Your task to perform on an android device: toggle javascript in the chrome app Image 0: 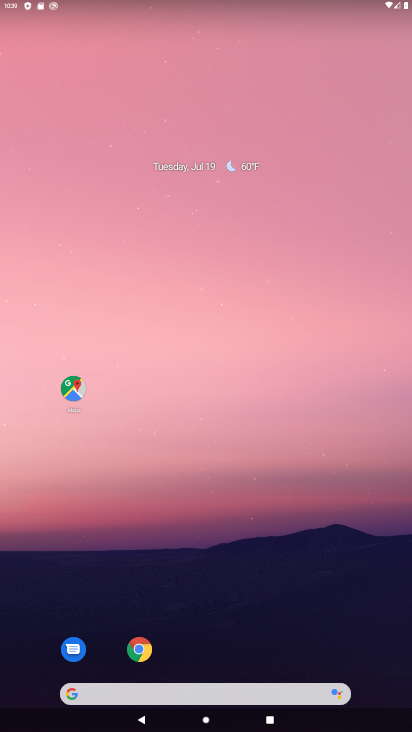
Step 0: click (147, 653)
Your task to perform on an android device: toggle javascript in the chrome app Image 1: 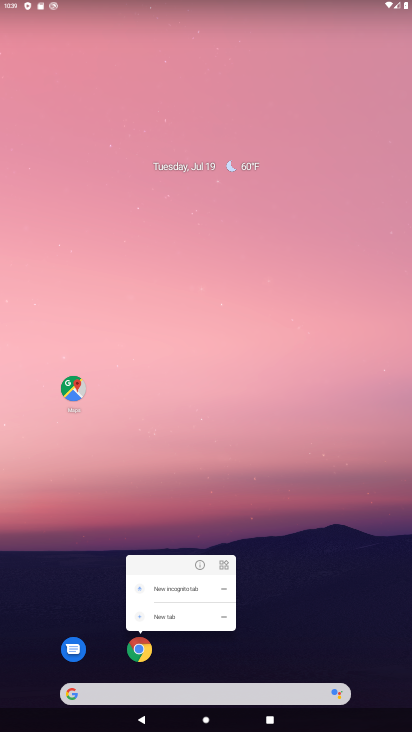
Step 1: click (135, 642)
Your task to perform on an android device: toggle javascript in the chrome app Image 2: 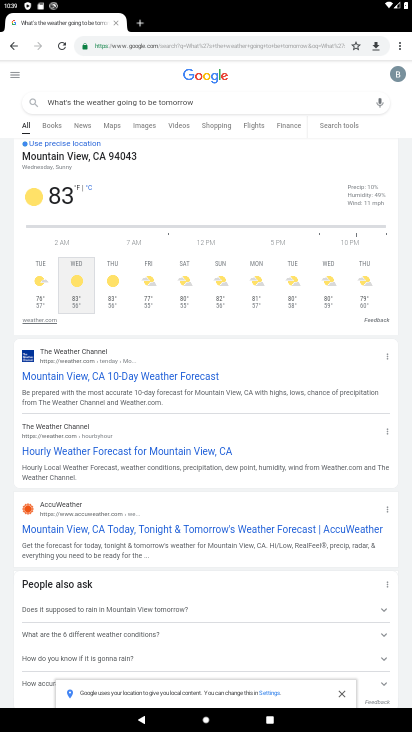
Step 2: drag from (399, 39) to (323, 276)
Your task to perform on an android device: toggle javascript in the chrome app Image 3: 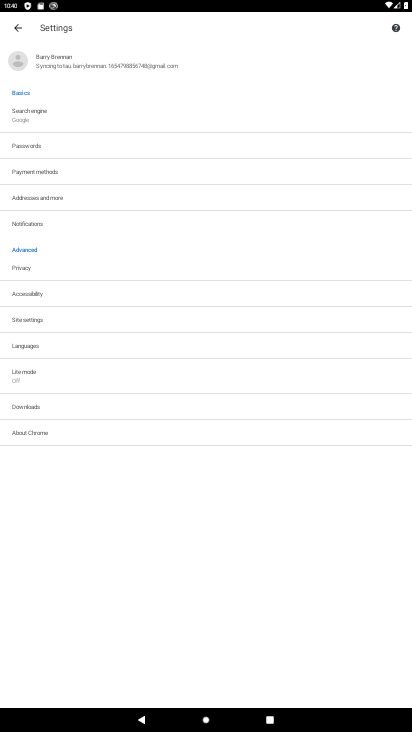
Step 3: click (43, 310)
Your task to perform on an android device: toggle javascript in the chrome app Image 4: 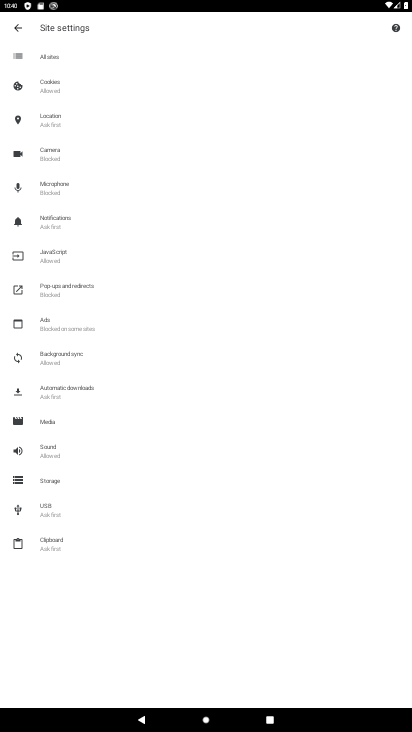
Step 4: click (116, 259)
Your task to perform on an android device: toggle javascript in the chrome app Image 5: 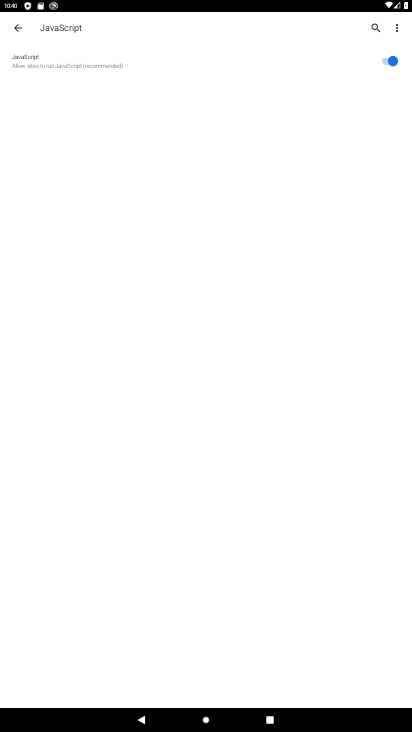
Step 5: click (384, 54)
Your task to perform on an android device: toggle javascript in the chrome app Image 6: 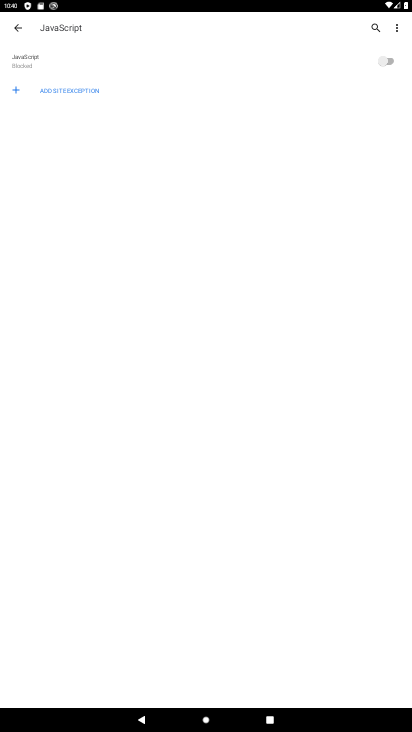
Step 6: task complete